Your task to perform on an android device: change alarm snooze length Image 0: 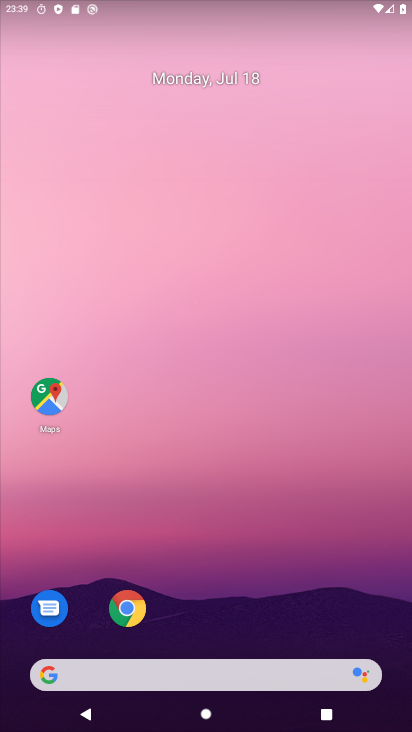
Step 0: drag from (174, 675) to (270, 113)
Your task to perform on an android device: change alarm snooze length Image 1: 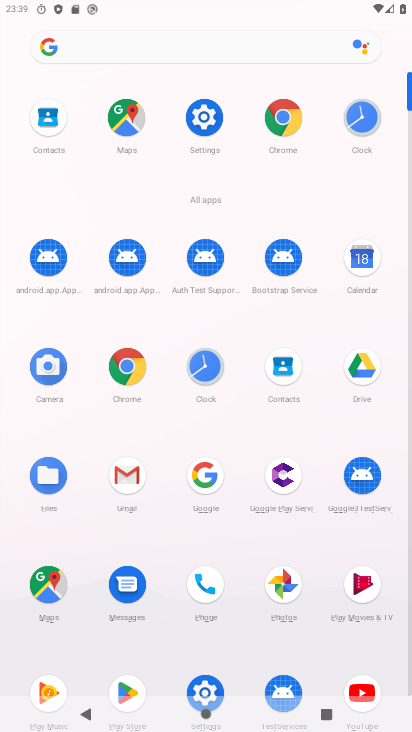
Step 1: click (364, 117)
Your task to perform on an android device: change alarm snooze length Image 2: 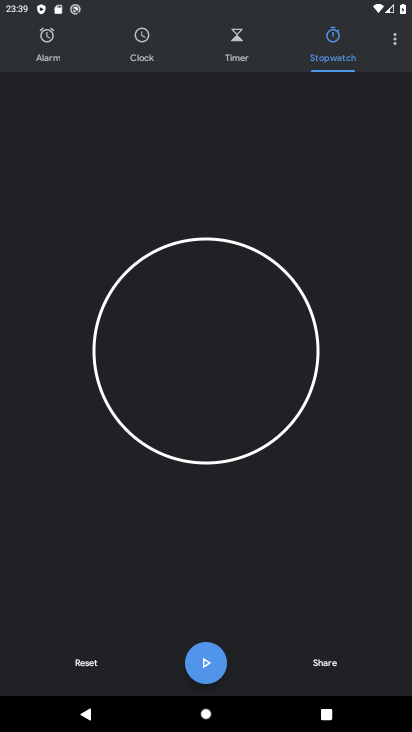
Step 2: click (396, 40)
Your task to perform on an android device: change alarm snooze length Image 3: 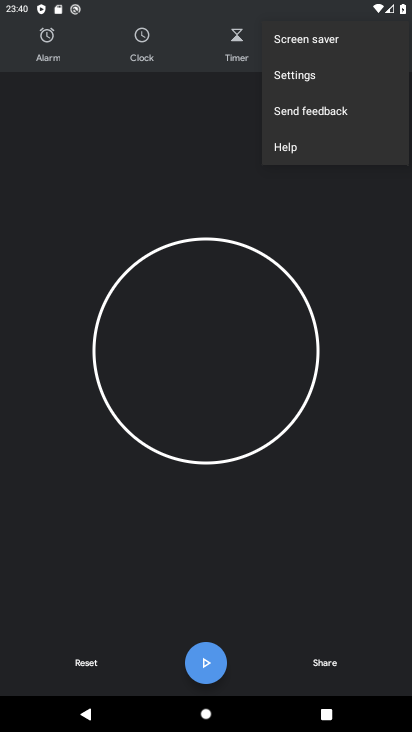
Step 3: click (304, 73)
Your task to perform on an android device: change alarm snooze length Image 4: 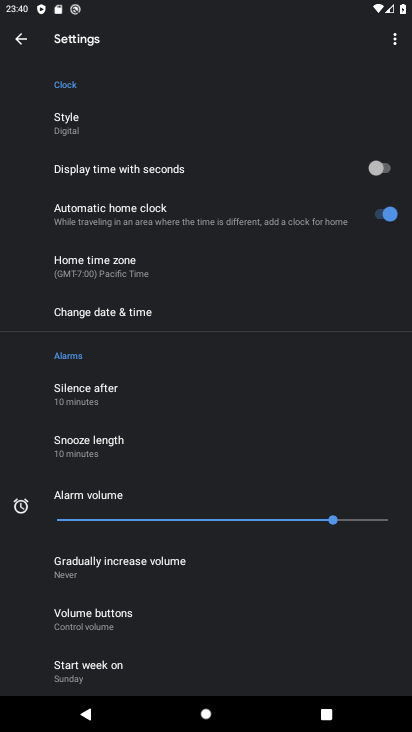
Step 4: click (115, 449)
Your task to perform on an android device: change alarm snooze length Image 5: 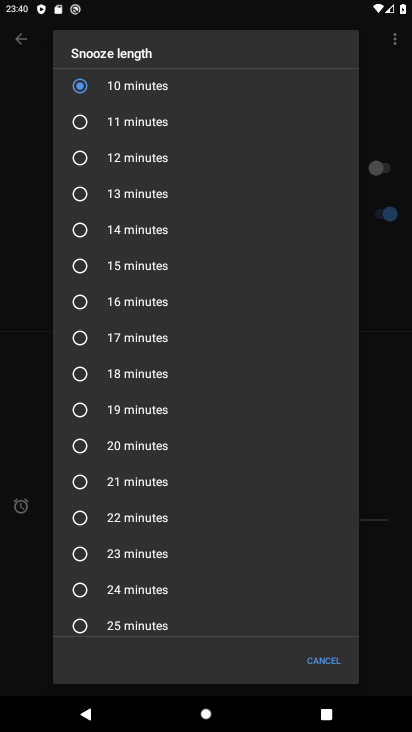
Step 5: click (84, 409)
Your task to perform on an android device: change alarm snooze length Image 6: 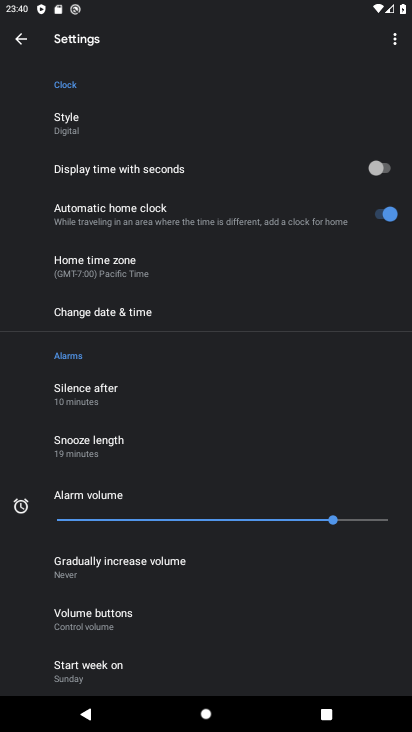
Step 6: task complete